Your task to perform on an android device: make emails show in primary in the gmail app Image 0: 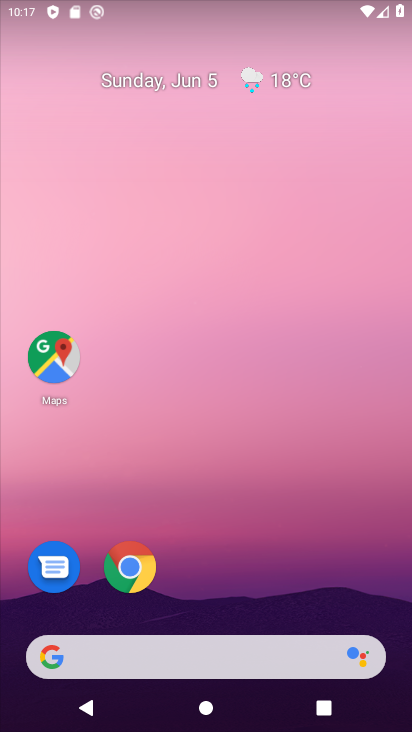
Step 0: drag from (208, 576) to (168, 179)
Your task to perform on an android device: make emails show in primary in the gmail app Image 1: 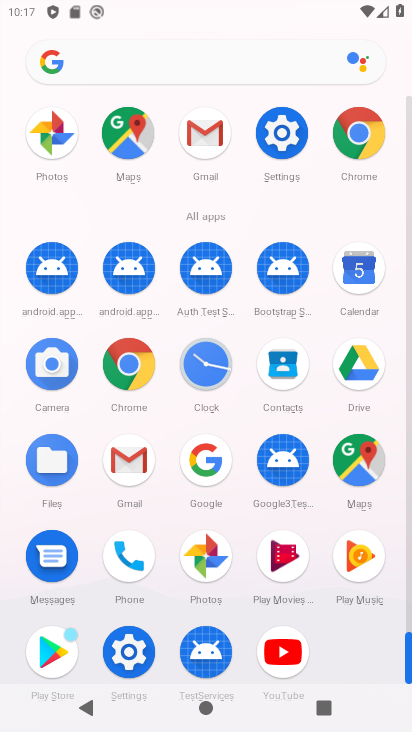
Step 1: click (218, 120)
Your task to perform on an android device: make emails show in primary in the gmail app Image 2: 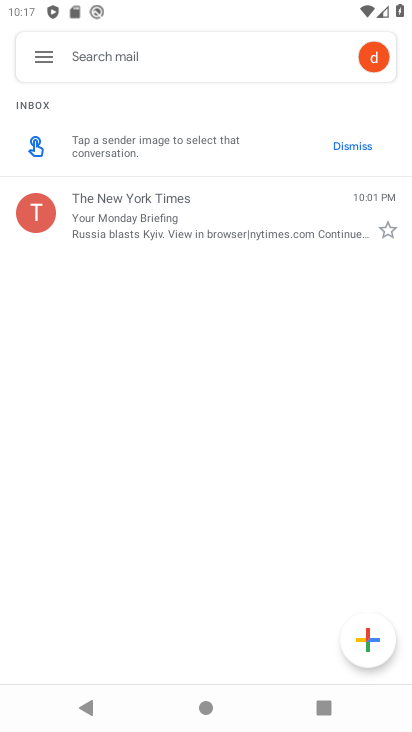
Step 2: click (58, 58)
Your task to perform on an android device: make emails show in primary in the gmail app Image 3: 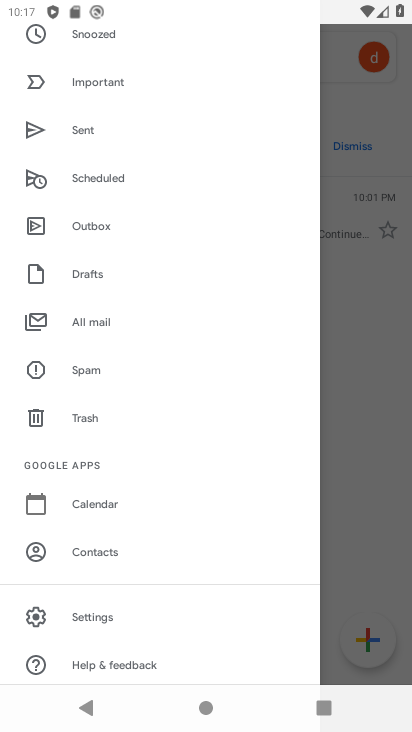
Step 3: task complete